Your task to perform on an android device: turn off wifi Image 0: 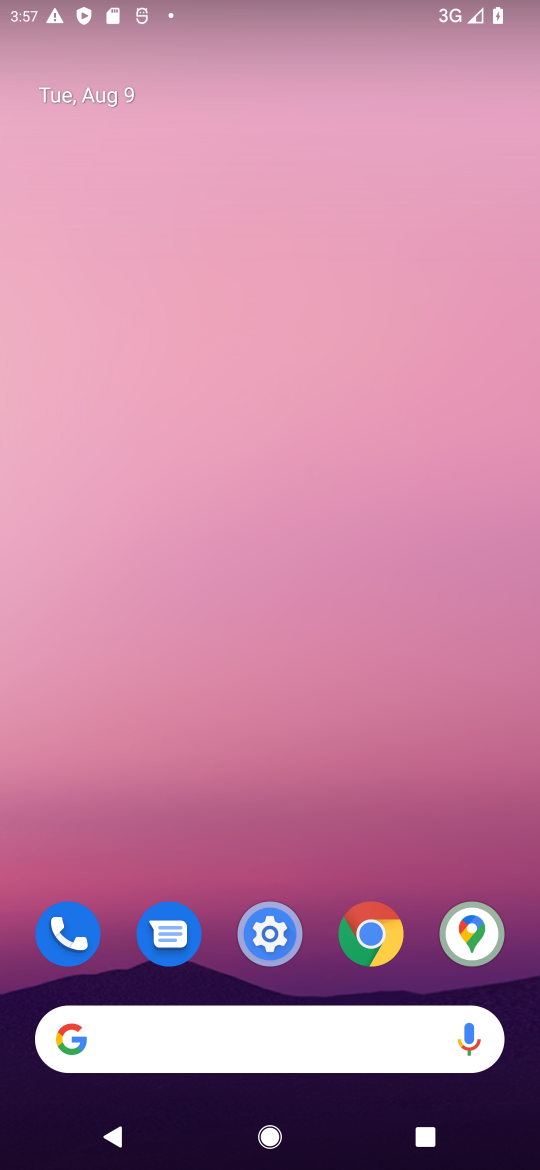
Step 0: click (243, 942)
Your task to perform on an android device: turn off wifi Image 1: 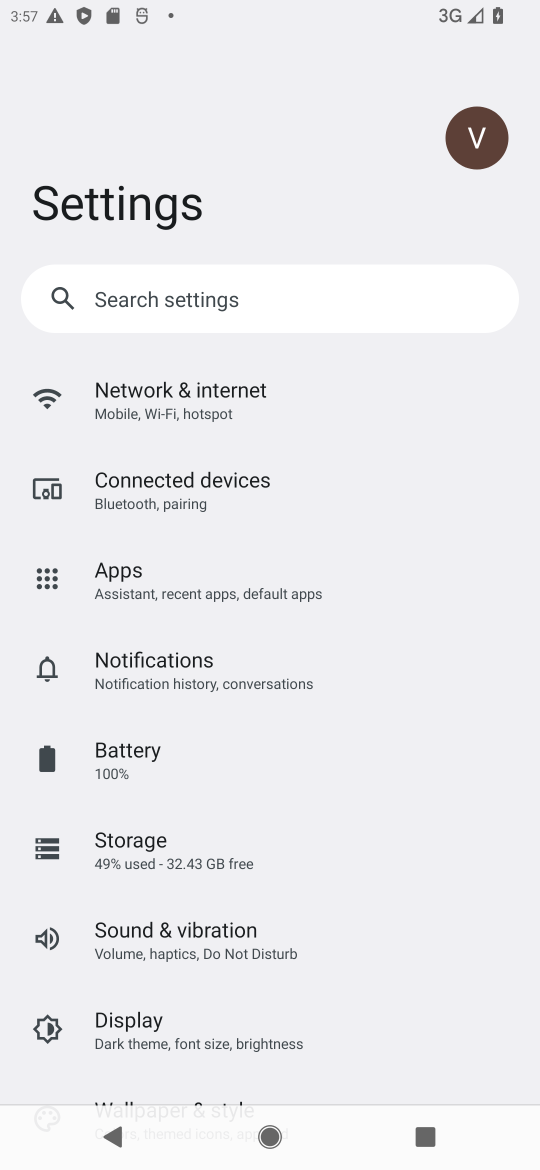
Step 1: click (322, 406)
Your task to perform on an android device: turn off wifi Image 2: 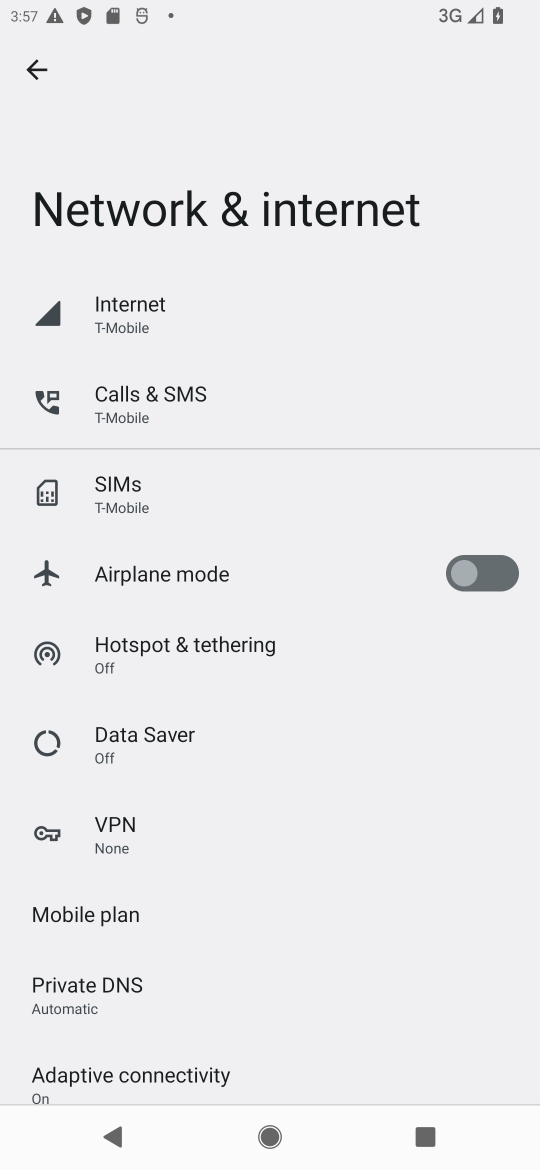
Step 2: click (231, 303)
Your task to perform on an android device: turn off wifi Image 3: 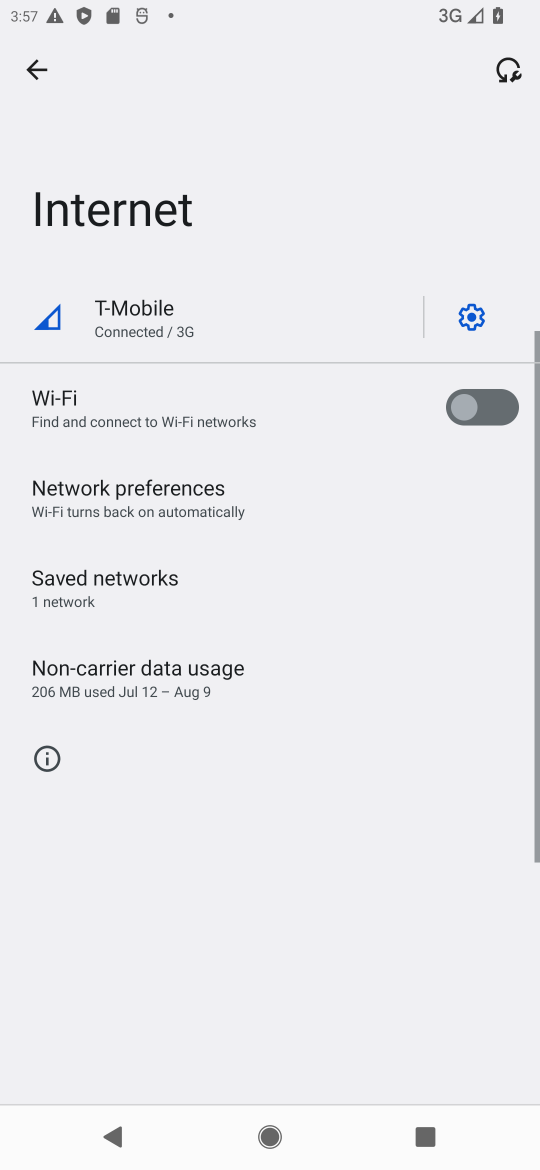
Step 3: task complete